Your task to perform on an android device: allow notifications from all sites in the chrome app Image 0: 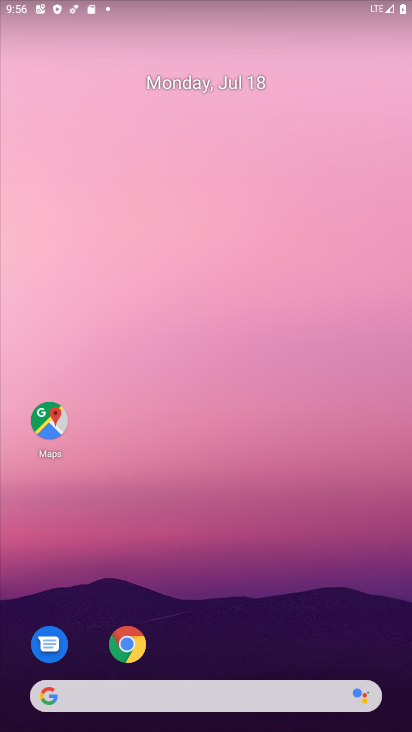
Step 0: drag from (317, 600) to (334, 93)
Your task to perform on an android device: allow notifications from all sites in the chrome app Image 1: 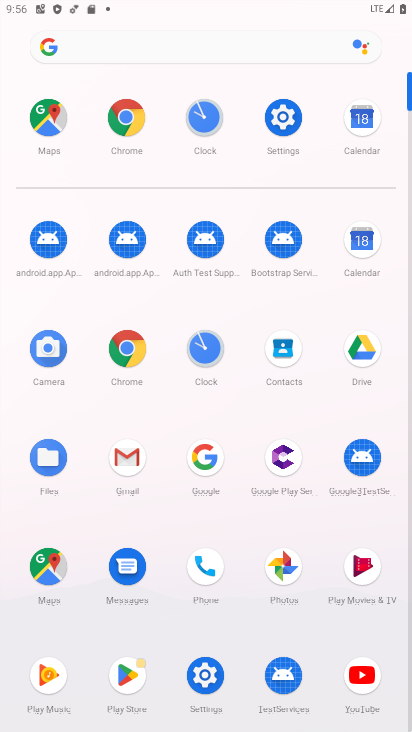
Step 1: click (133, 354)
Your task to perform on an android device: allow notifications from all sites in the chrome app Image 2: 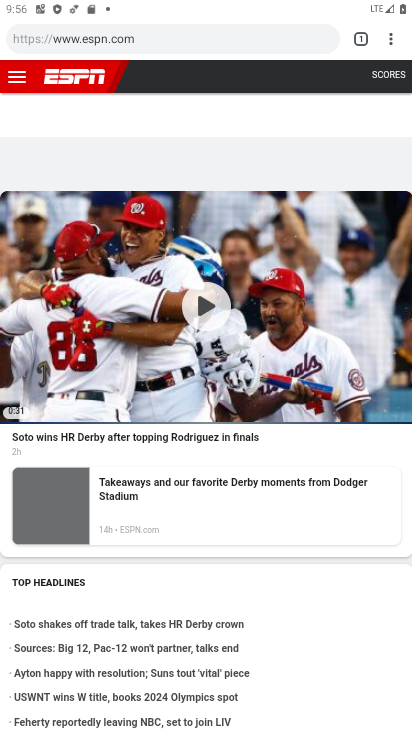
Step 2: click (394, 38)
Your task to perform on an android device: allow notifications from all sites in the chrome app Image 3: 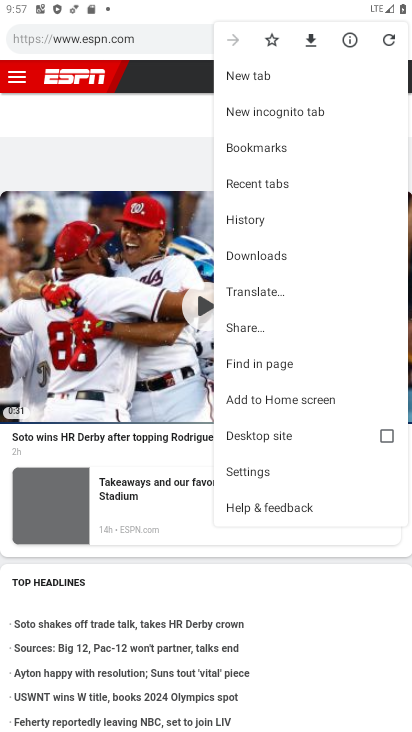
Step 3: click (260, 471)
Your task to perform on an android device: allow notifications from all sites in the chrome app Image 4: 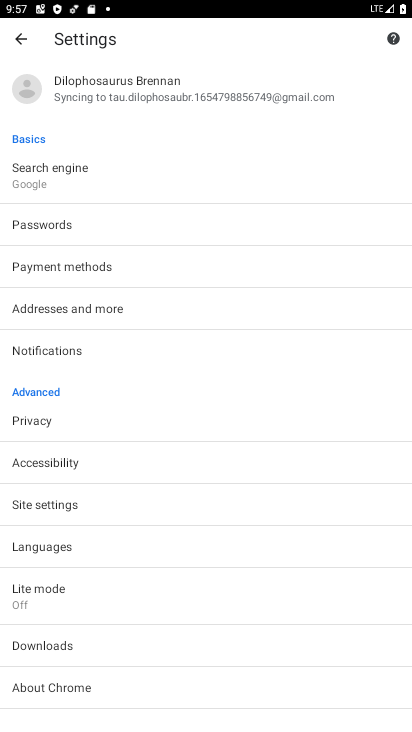
Step 4: drag from (210, 560) to (215, 459)
Your task to perform on an android device: allow notifications from all sites in the chrome app Image 5: 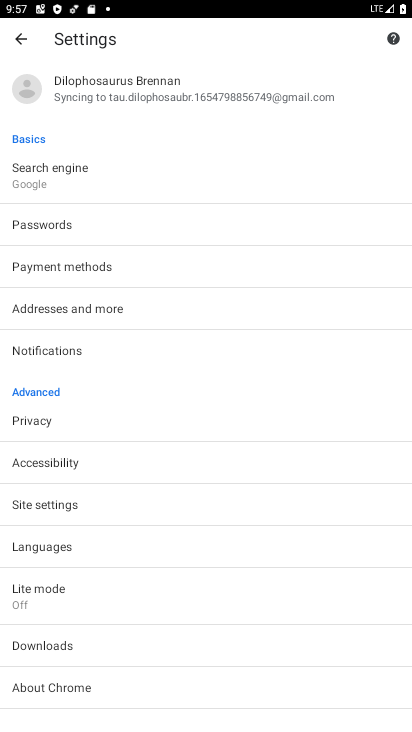
Step 5: click (207, 498)
Your task to perform on an android device: allow notifications from all sites in the chrome app Image 6: 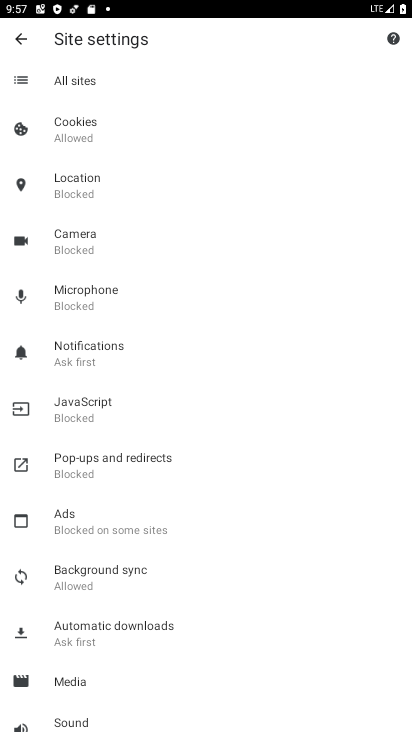
Step 6: drag from (264, 589) to (255, 405)
Your task to perform on an android device: allow notifications from all sites in the chrome app Image 7: 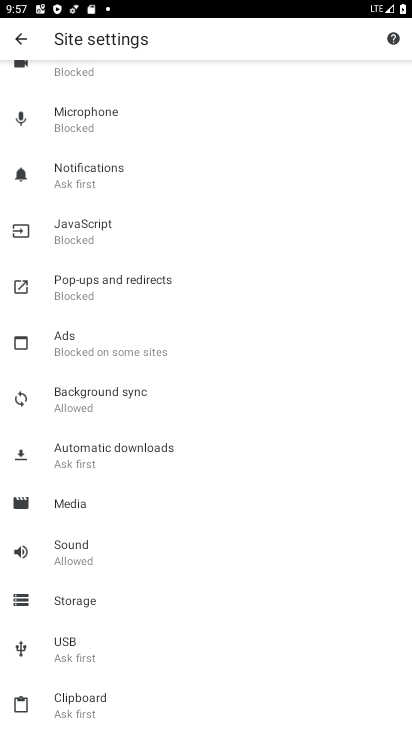
Step 7: drag from (292, 466) to (303, 414)
Your task to perform on an android device: allow notifications from all sites in the chrome app Image 8: 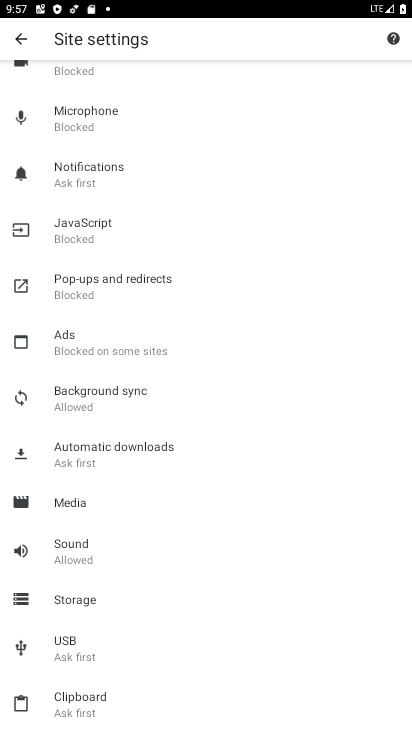
Step 8: drag from (311, 331) to (311, 399)
Your task to perform on an android device: allow notifications from all sites in the chrome app Image 9: 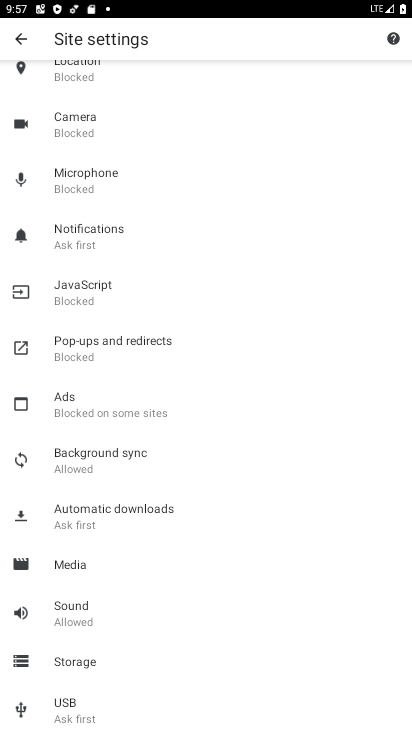
Step 9: drag from (303, 265) to (305, 347)
Your task to perform on an android device: allow notifications from all sites in the chrome app Image 10: 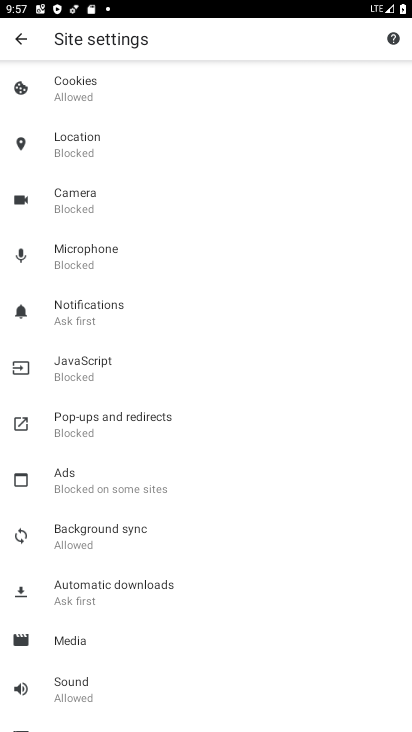
Step 10: drag from (298, 239) to (309, 334)
Your task to perform on an android device: allow notifications from all sites in the chrome app Image 11: 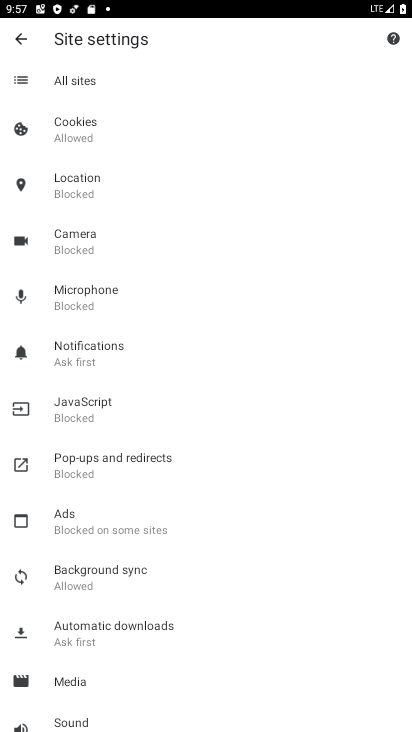
Step 11: click (183, 362)
Your task to perform on an android device: allow notifications from all sites in the chrome app Image 12: 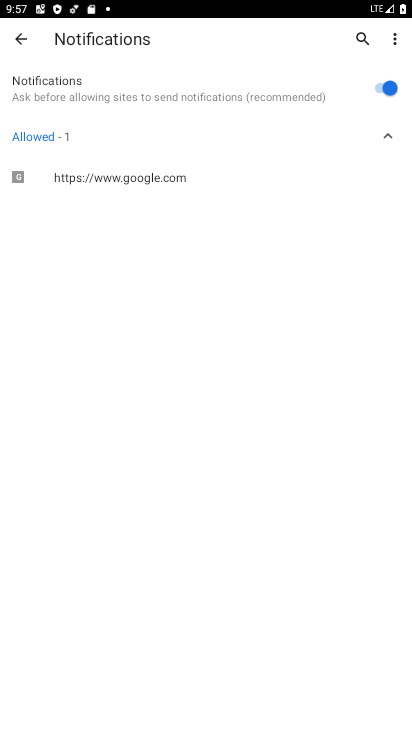
Step 12: task complete